Your task to perform on an android device: Search for seafood restaurants on Google Maps Image 0: 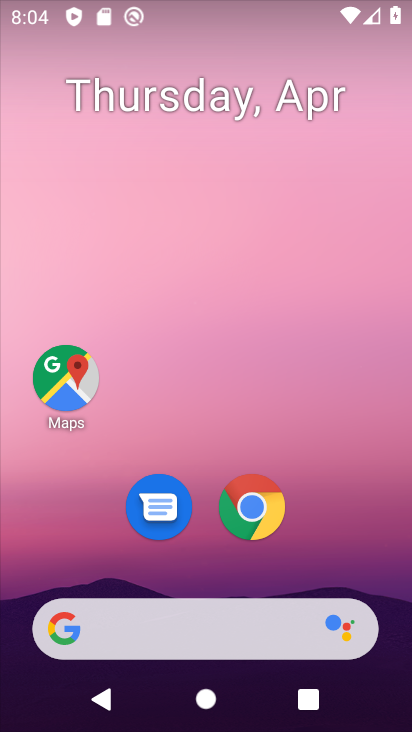
Step 0: drag from (373, 531) to (339, 163)
Your task to perform on an android device: Search for seafood restaurants on Google Maps Image 1: 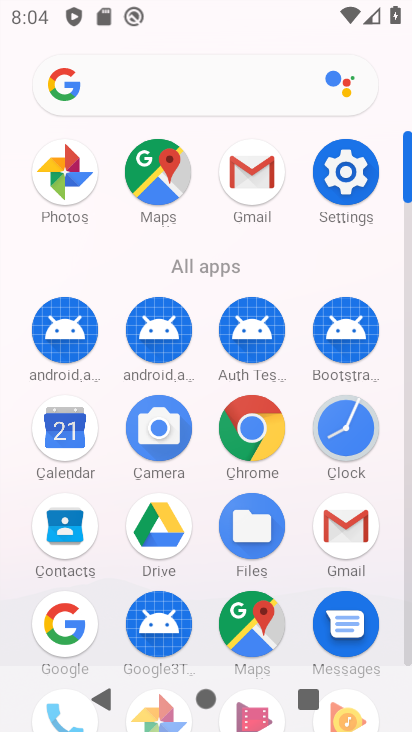
Step 1: click (249, 605)
Your task to perform on an android device: Search for seafood restaurants on Google Maps Image 2: 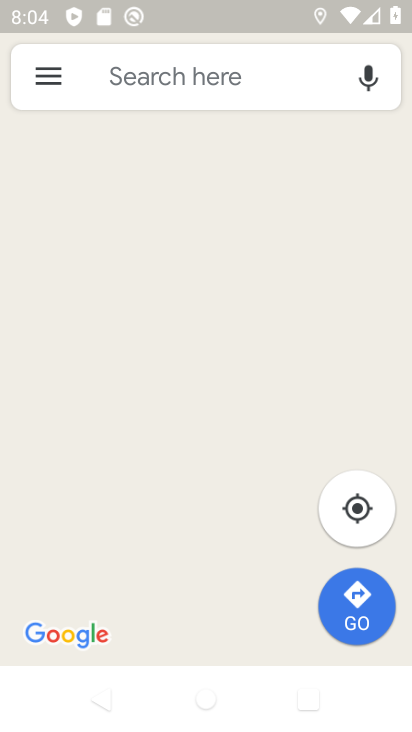
Step 2: click (211, 70)
Your task to perform on an android device: Search for seafood restaurants on Google Maps Image 3: 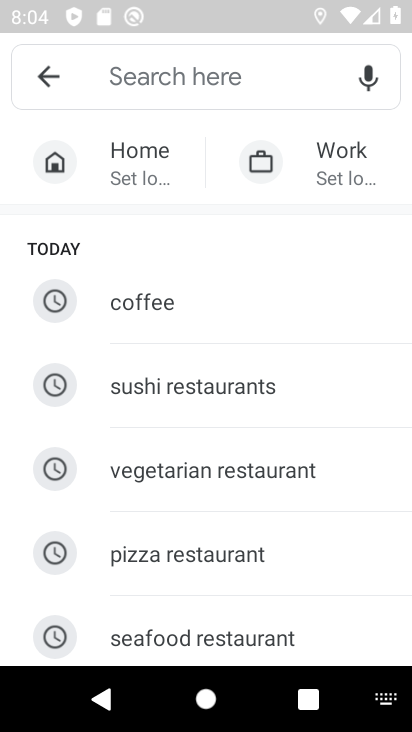
Step 3: type "seafood rest"
Your task to perform on an android device: Search for seafood restaurants on Google Maps Image 4: 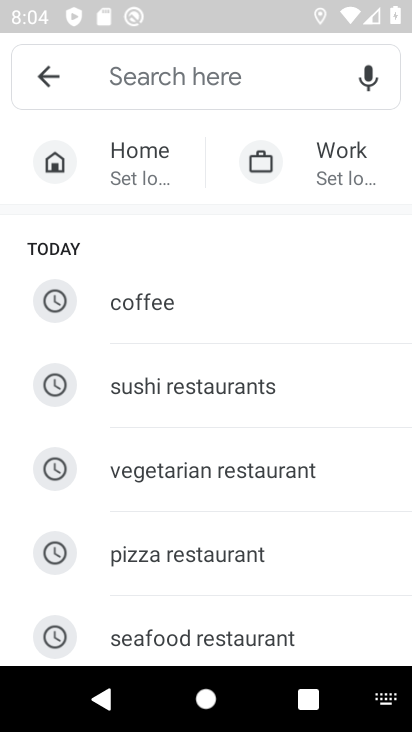
Step 4: click (273, 636)
Your task to perform on an android device: Search for seafood restaurants on Google Maps Image 5: 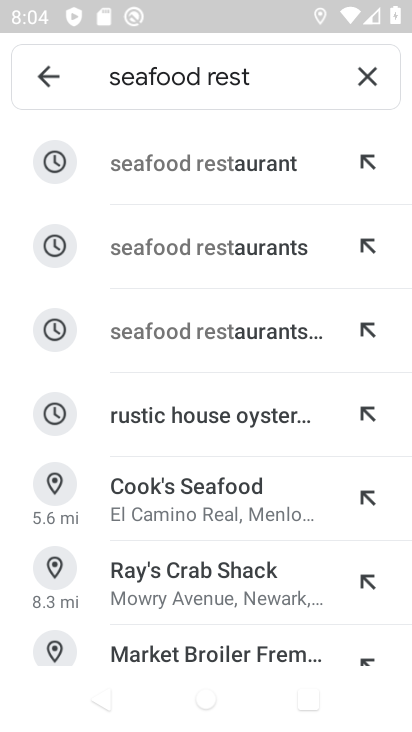
Step 5: click (188, 240)
Your task to perform on an android device: Search for seafood restaurants on Google Maps Image 6: 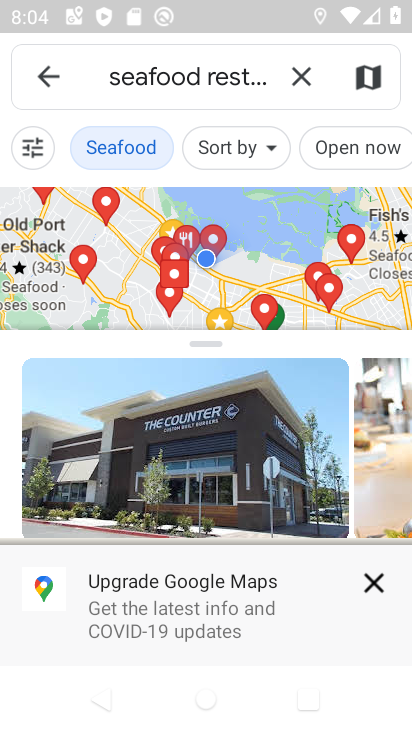
Step 6: task complete